Your task to perform on an android device: visit the assistant section in the google photos Image 0: 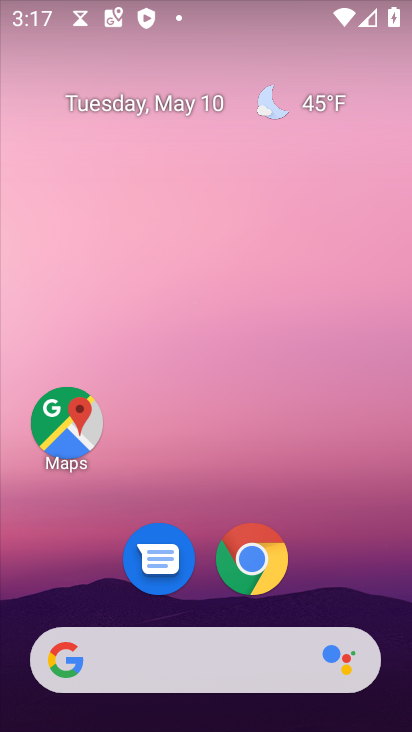
Step 0: drag from (346, 565) to (227, 12)
Your task to perform on an android device: visit the assistant section in the google photos Image 1: 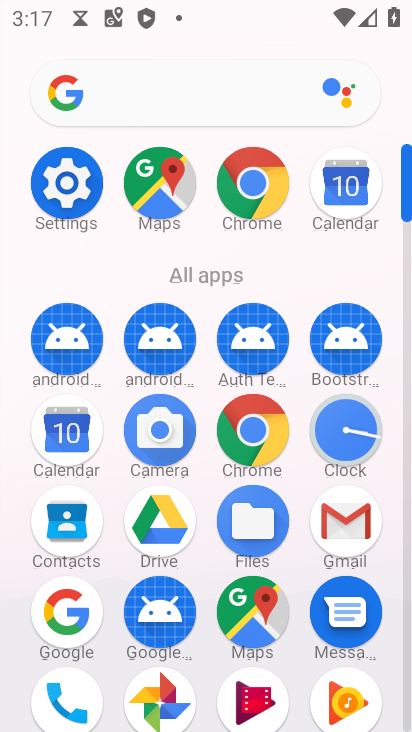
Step 1: click (151, 703)
Your task to perform on an android device: visit the assistant section in the google photos Image 2: 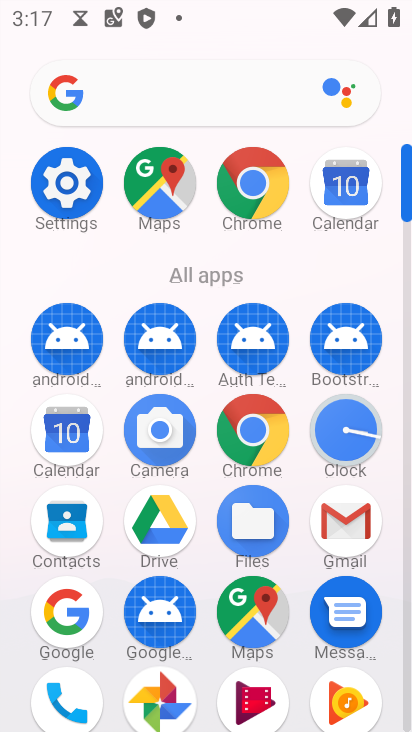
Step 2: click (151, 703)
Your task to perform on an android device: visit the assistant section in the google photos Image 3: 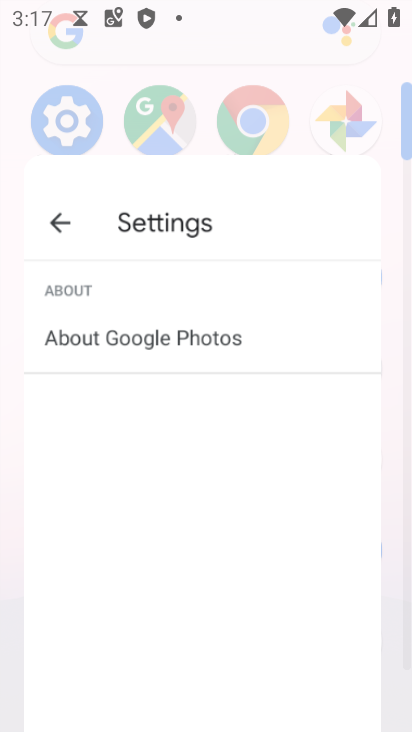
Step 3: click (157, 697)
Your task to perform on an android device: visit the assistant section in the google photos Image 4: 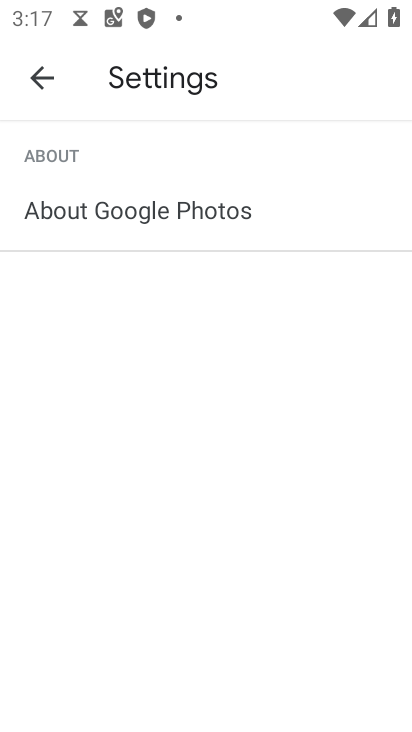
Step 4: click (45, 70)
Your task to perform on an android device: visit the assistant section in the google photos Image 5: 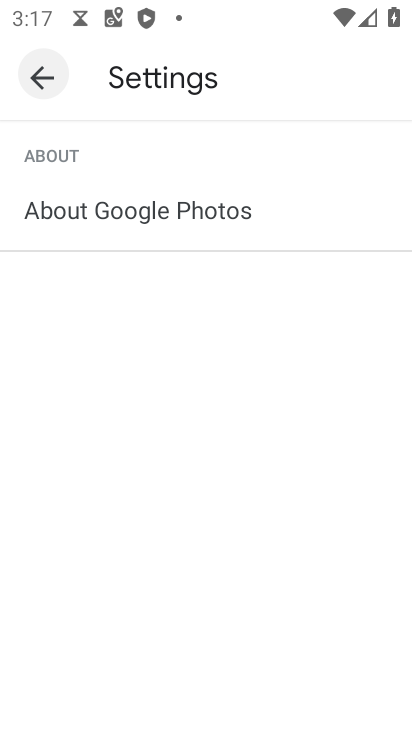
Step 5: click (41, 68)
Your task to perform on an android device: visit the assistant section in the google photos Image 6: 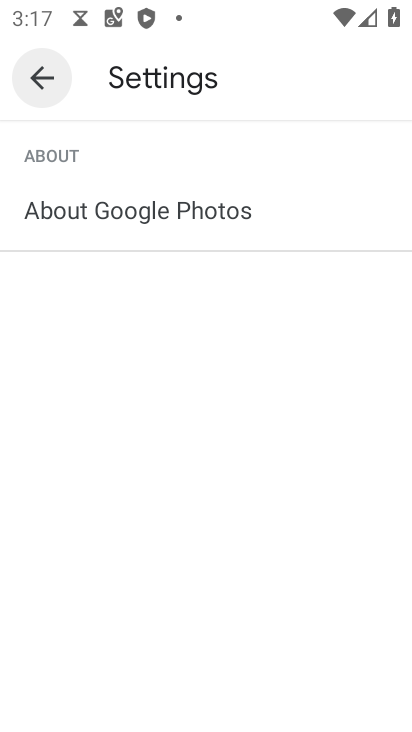
Step 6: click (41, 68)
Your task to perform on an android device: visit the assistant section in the google photos Image 7: 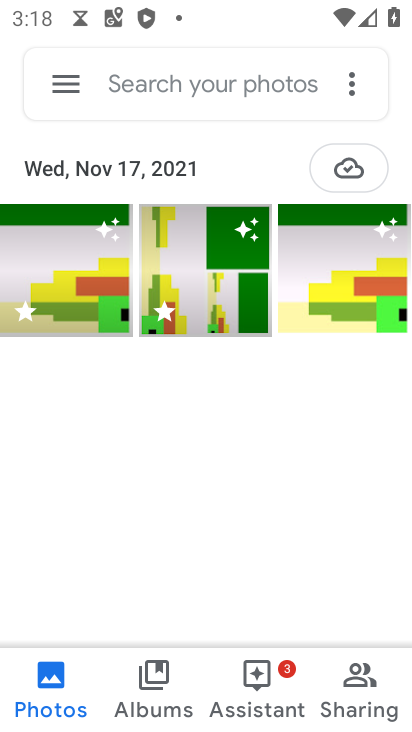
Step 7: click (245, 682)
Your task to perform on an android device: visit the assistant section in the google photos Image 8: 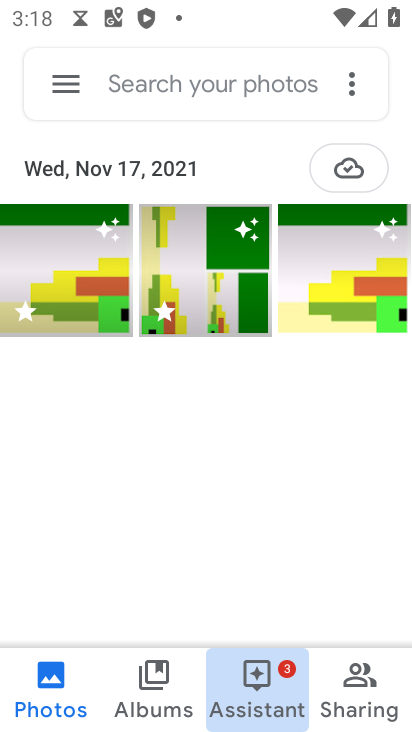
Step 8: click (254, 689)
Your task to perform on an android device: visit the assistant section in the google photos Image 9: 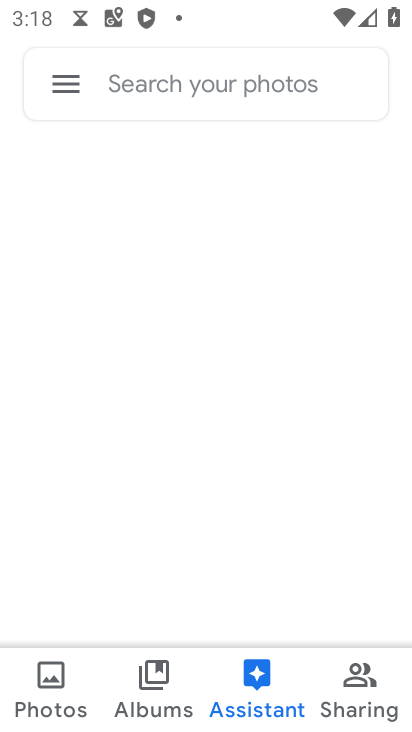
Step 9: click (254, 689)
Your task to perform on an android device: visit the assistant section in the google photos Image 10: 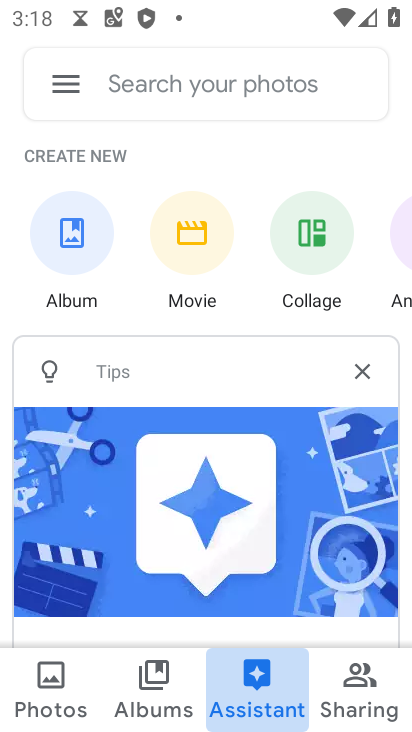
Step 10: click (253, 691)
Your task to perform on an android device: visit the assistant section in the google photos Image 11: 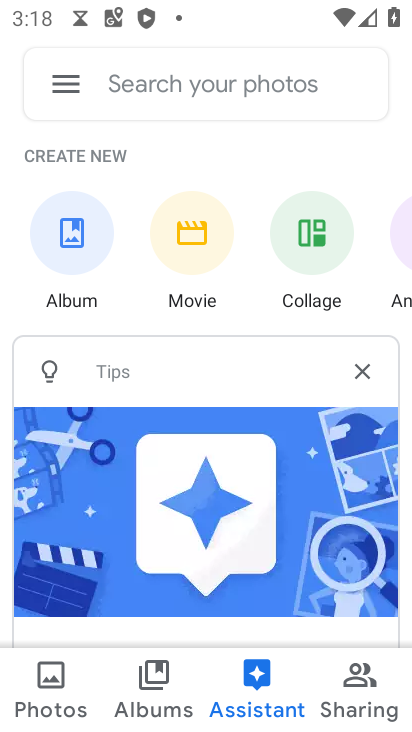
Step 11: click (253, 691)
Your task to perform on an android device: visit the assistant section in the google photos Image 12: 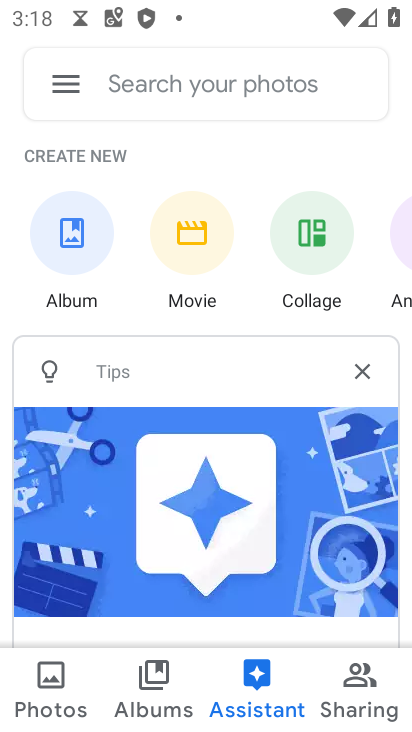
Step 12: task complete